Your task to perform on an android device: Open the phone app and click the voicemail tab. Image 0: 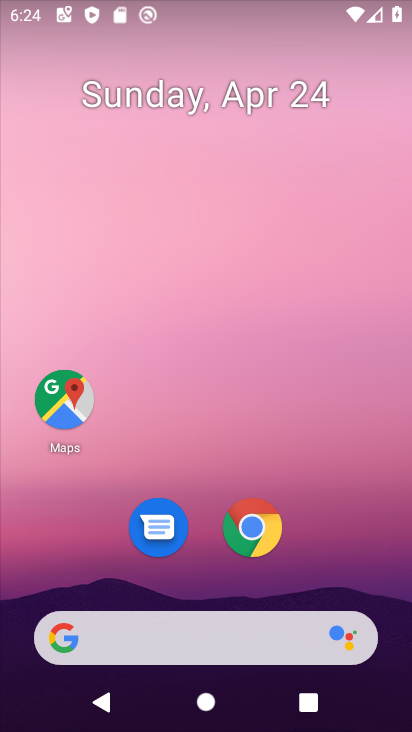
Step 0: drag from (315, 587) to (243, 5)
Your task to perform on an android device: Open the phone app and click the voicemail tab. Image 1: 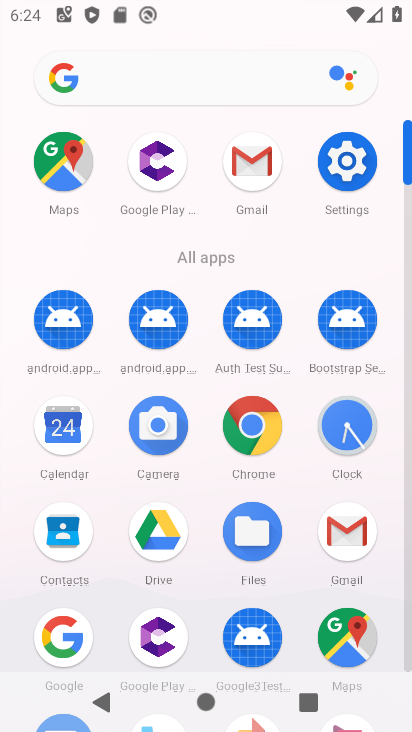
Step 1: drag from (202, 626) to (132, 0)
Your task to perform on an android device: Open the phone app and click the voicemail tab. Image 2: 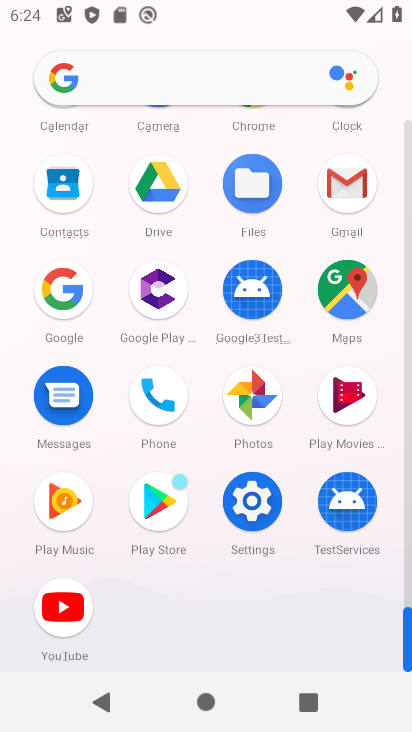
Step 2: click (154, 406)
Your task to perform on an android device: Open the phone app and click the voicemail tab. Image 3: 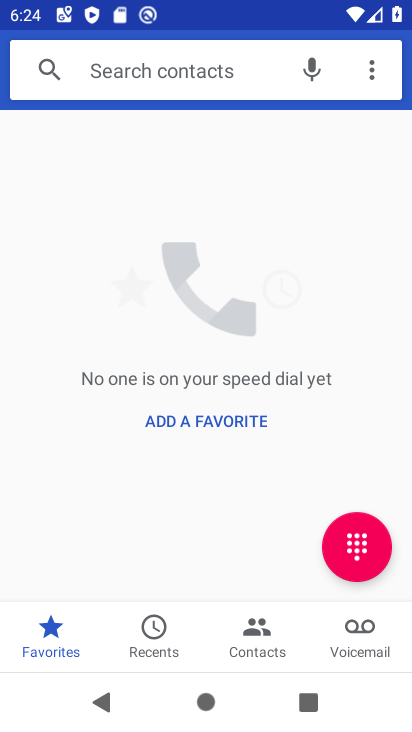
Step 3: click (353, 629)
Your task to perform on an android device: Open the phone app and click the voicemail tab. Image 4: 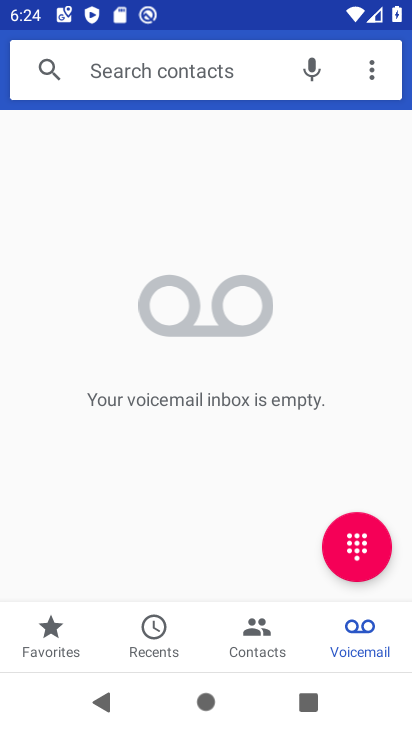
Step 4: task complete